Your task to perform on an android device: check android version Image 0: 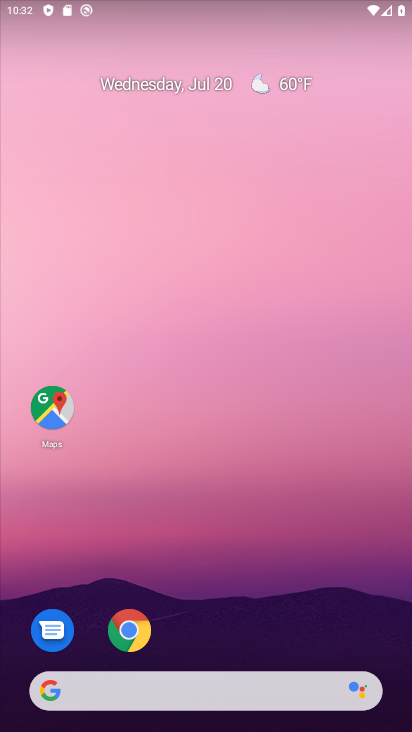
Step 0: drag from (195, 584) to (191, 232)
Your task to perform on an android device: check android version Image 1: 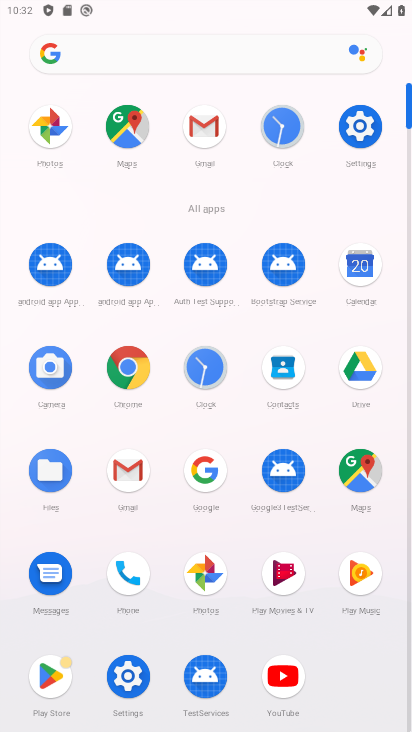
Step 1: click (129, 674)
Your task to perform on an android device: check android version Image 2: 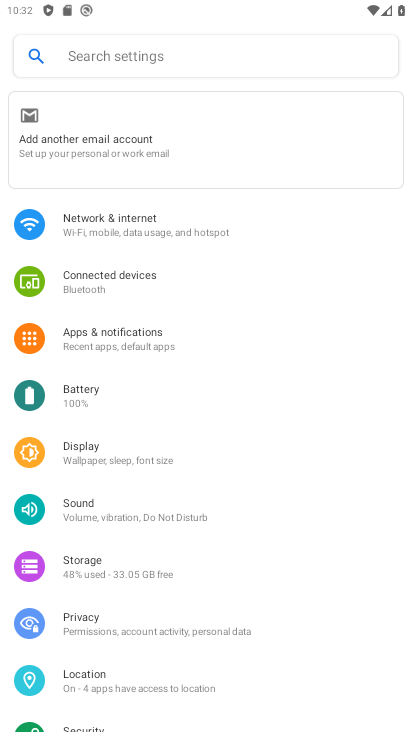
Step 2: drag from (89, 662) to (104, 222)
Your task to perform on an android device: check android version Image 3: 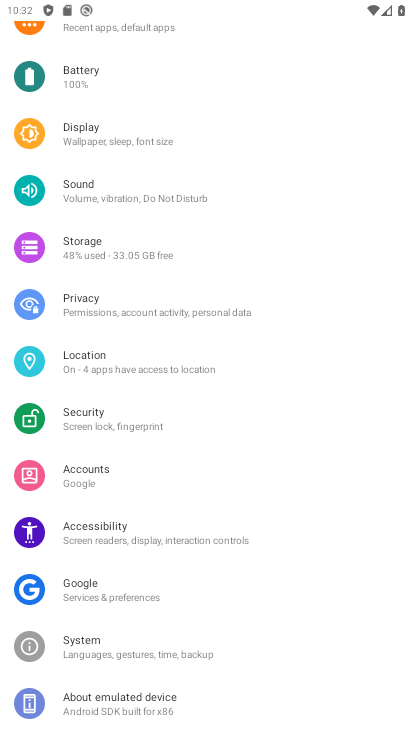
Step 3: drag from (141, 703) to (143, 434)
Your task to perform on an android device: check android version Image 4: 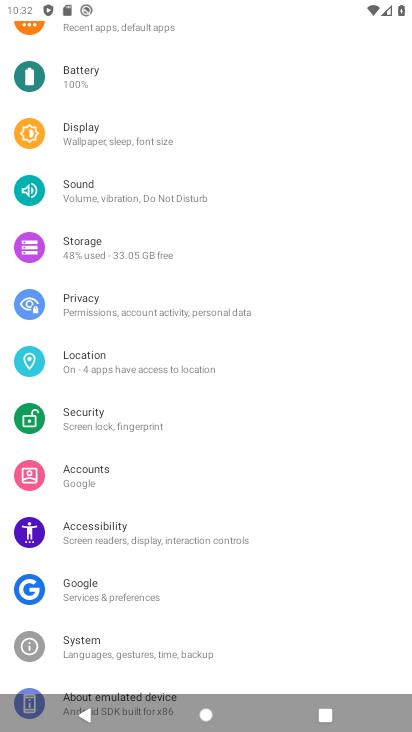
Step 4: drag from (166, 668) to (196, 328)
Your task to perform on an android device: check android version Image 5: 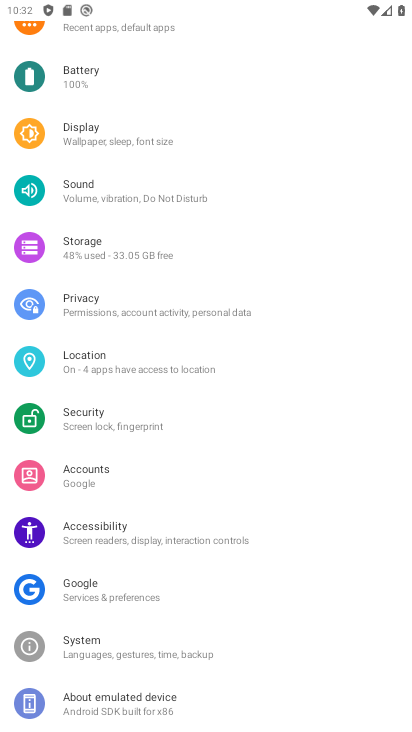
Step 5: click (117, 706)
Your task to perform on an android device: check android version Image 6: 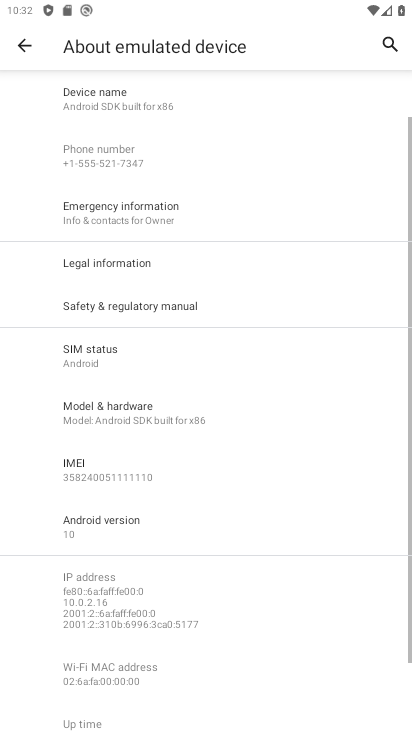
Step 6: click (119, 526)
Your task to perform on an android device: check android version Image 7: 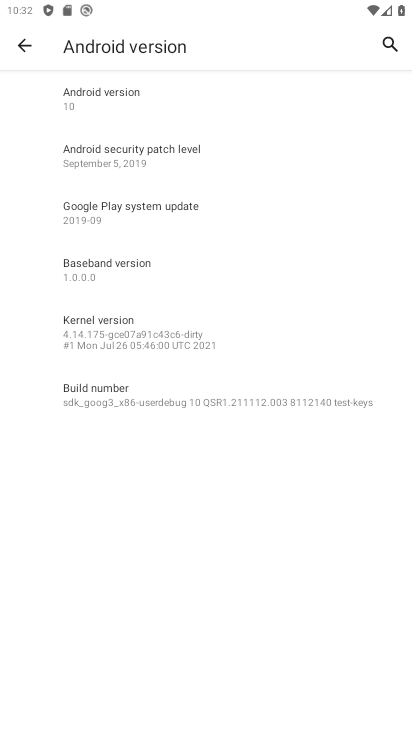
Step 7: task complete